Your task to perform on an android device: Do I have any events tomorrow? Image 0: 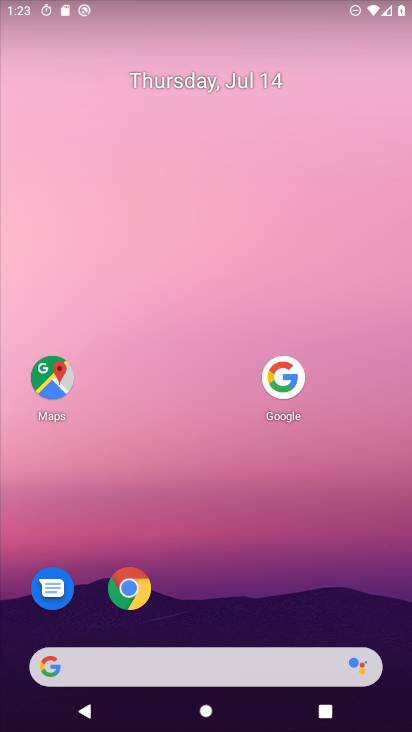
Step 0: drag from (224, 676) to (280, 93)
Your task to perform on an android device: Do I have any events tomorrow? Image 1: 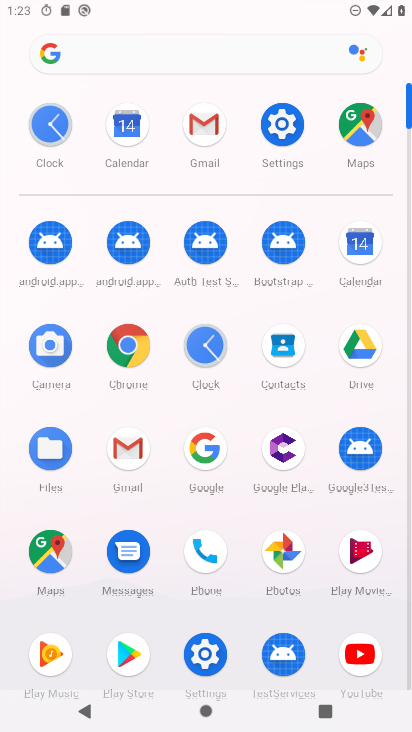
Step 1: click (357, 248)
Your task to perform on an android device: Do I have any events tomorrow? Image 2: 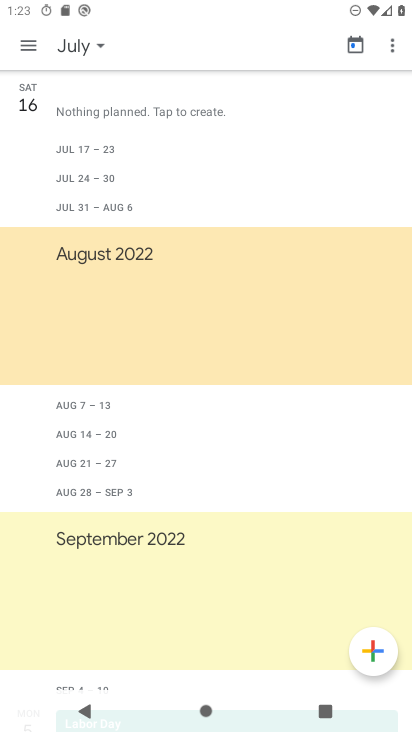
Step 2: click (83, 39)
Your task to perform on an android device: Do I have any events tomorrow? Image 3: 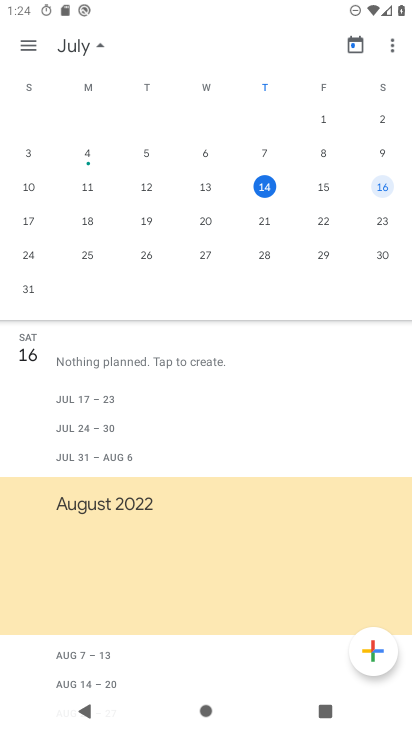
Step 3: click (324, 189)
Your task to perform on an android device: Do I have any events tomorrow? Image 4: 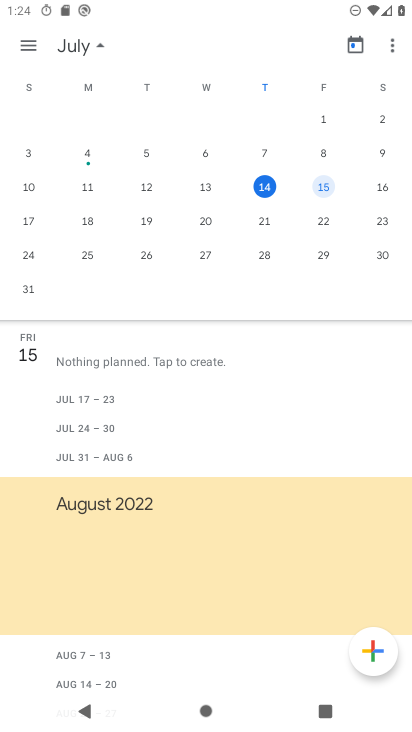
Step 4: click (22, 42)
Your task to perform on an android device: Do I have any events tomorrow? Image 5: 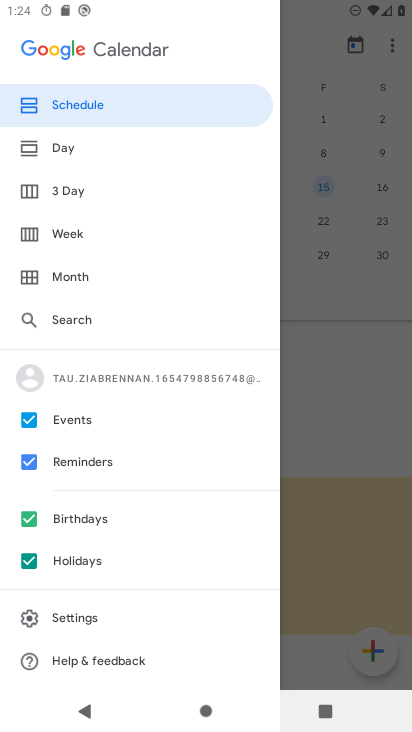
Step 5: click (71, 149)
Your task to perform on an android device: Do I have any events tomorrow? Image 6: 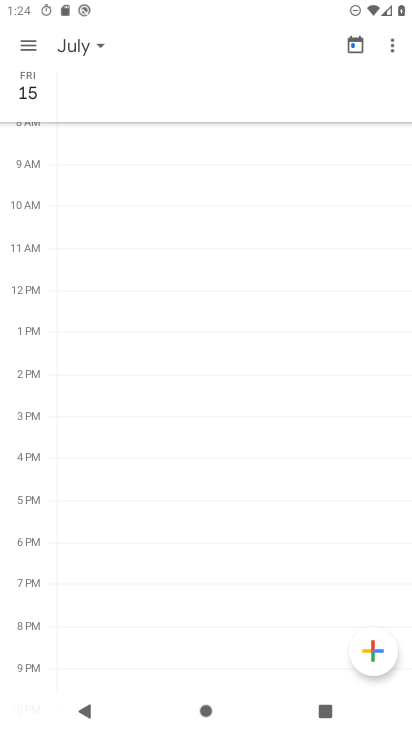
Step 6: click (31, 46)
Your task to perform on an android device: Do I have any events tomorrow? Image 7: 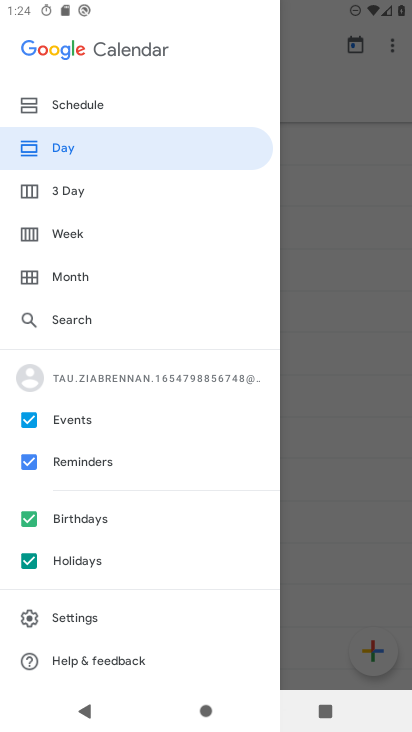
Step 7: click (82, 106)
Your task to perform on an android device: Do I have any events tomorrow? Image 8: 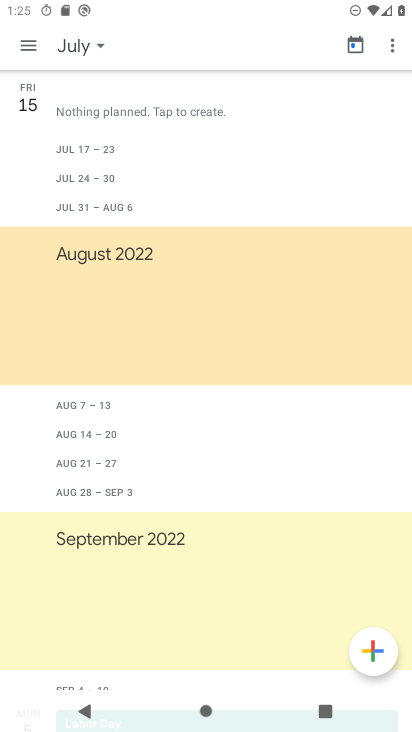
Step 8: task complete